Your task to perform on an android device: Go to wifi settings Image 0: 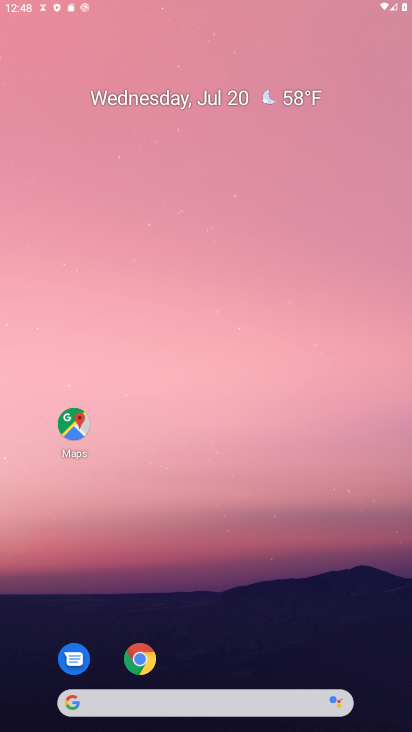
Step 0: press home button
Your task to perform on an android device: Go to wifi settings Image 1: 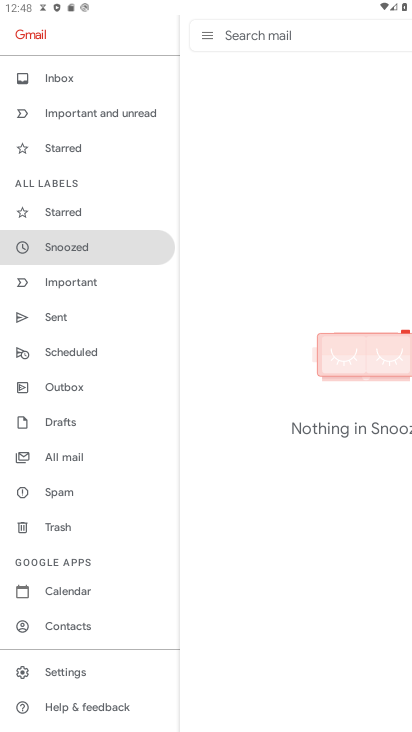
Step 1: drag from (213, 672) to (251, 12)
Your task to perform on an android device: Go to wifi settings Image 2: 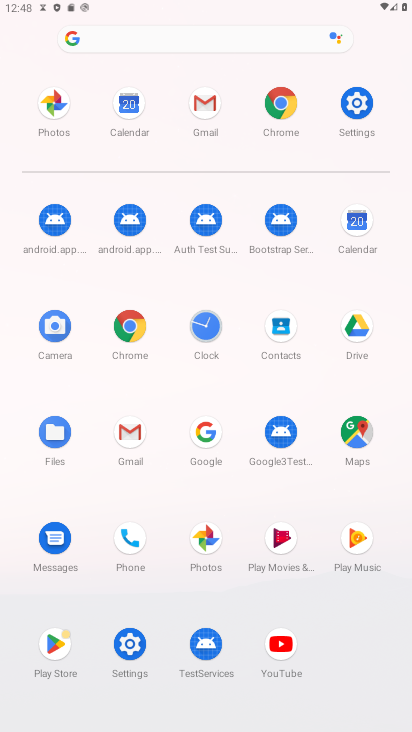
Step 2: click (356, 101)
Your task to perform on an android device: Go to wifi settings Image 3: 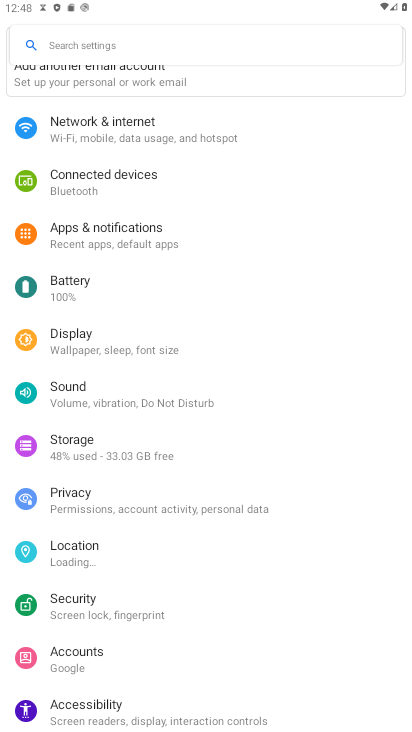
Step 3: click (163, 123)
Your task to perform on an android device: Go to wifi settings Image 4: 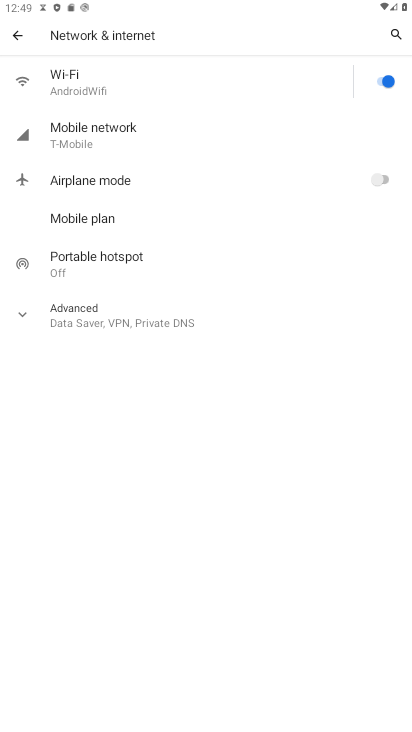
Step 4: click (109, 83)
Your task to perform on an android device: Go to wifi settings Image 5: 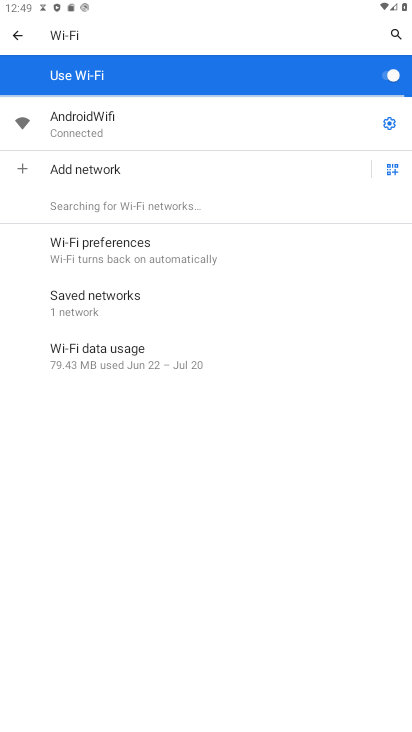
Step 5: task complete